Your task to perform on an android device: move an email to a new category in the gmail app Image 0: 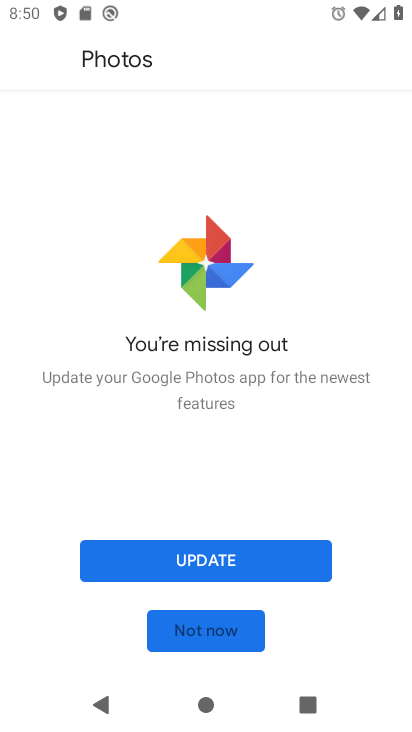
Step 0: drag from (264, 603) to (136, 194)
Your task to perform on an android device: move an email to a new category in the gmail app Image 1: 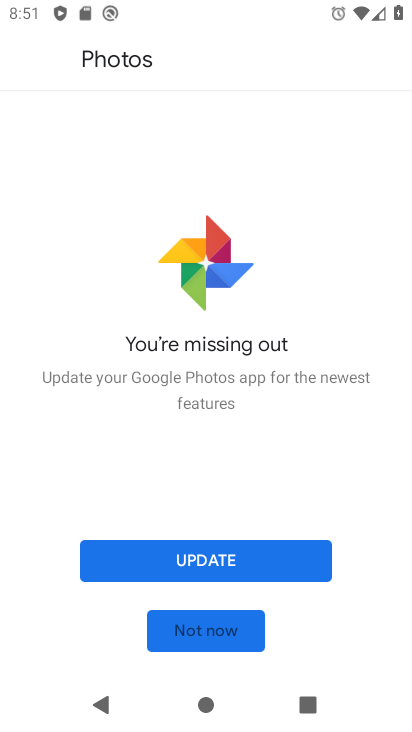
Step 1: press back button
Your task to perform on an android device: move an email to a new category in the gmail app Image 2: 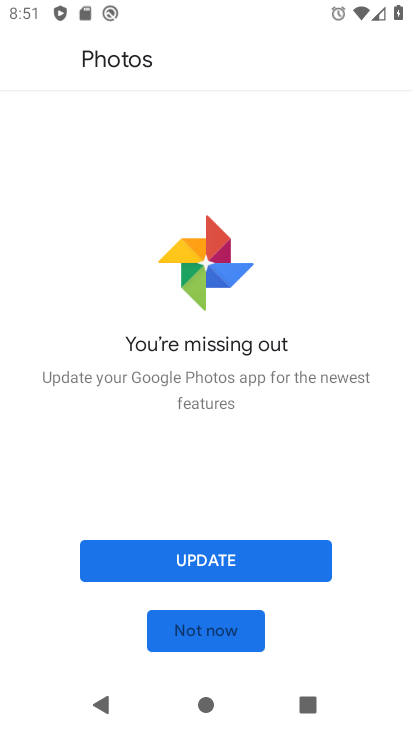
Step 2: press back button
Your task to perform on an android device: move an email to a new category in the gmail app Image 3: 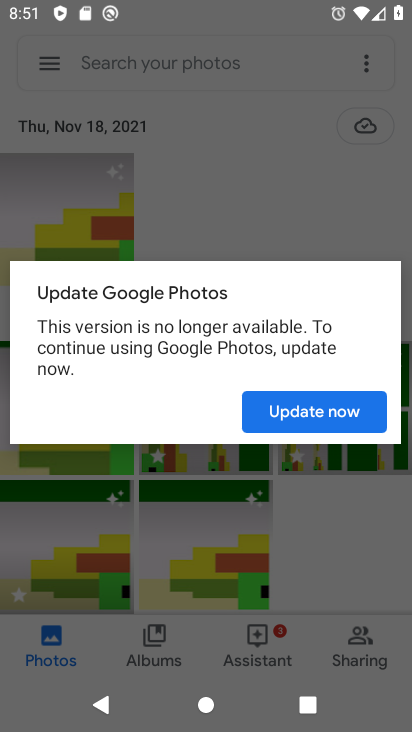
Step 3: press back button
Your task to perform on an android device: move an email to a new category in the gmail app Image 4: 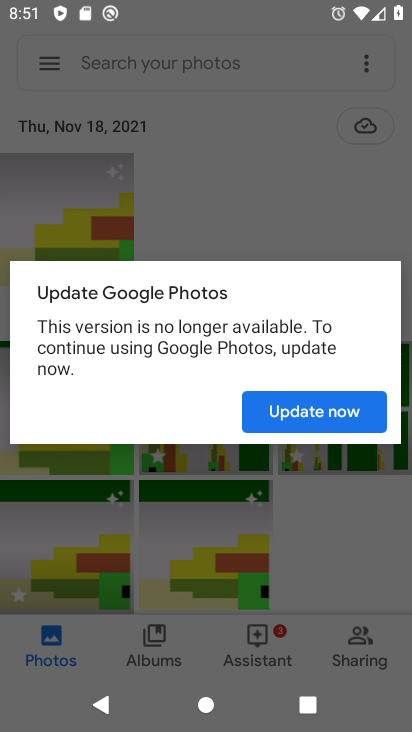
Step 4: press back button
Your task to perform on an android device: move an email to a new category in the gmail app Image 5: 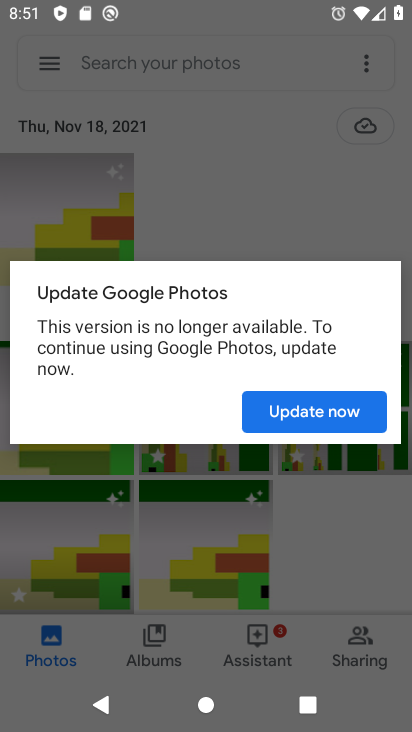
Step 5: press back button
Your task to perform on an android device: move an email to a new category in the gmail app Image 6: 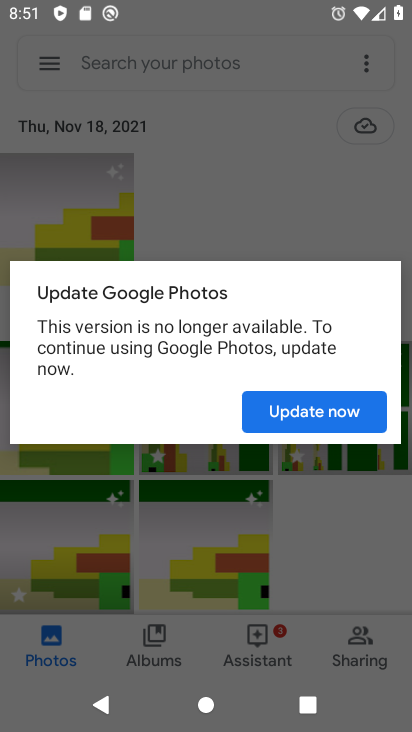
Step 6: click (317, 414)
Your task to perform on an android device: move an email to a new category in the gmail app Image 7: 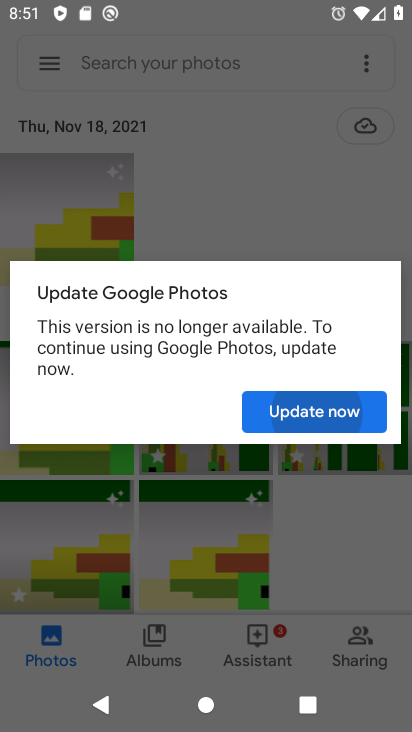
Step 7: click (317, 414)
Your task to perform on an android device: move an email to a new category in the gmail app Image 8: 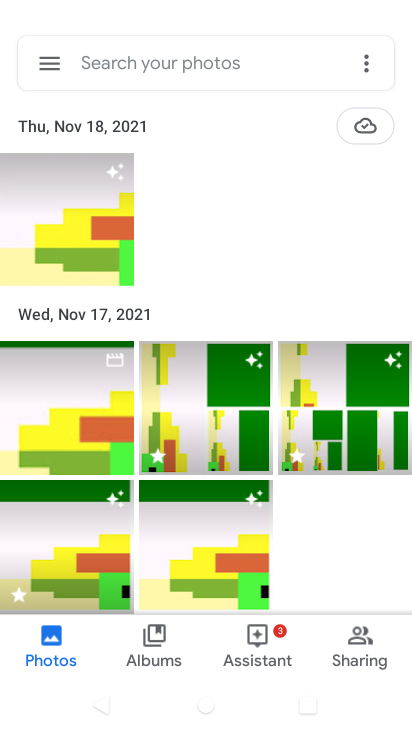
Step 8: click (319, 416)
Your task to perform on an android device: move an email to a new category in the gmail app Image 9: 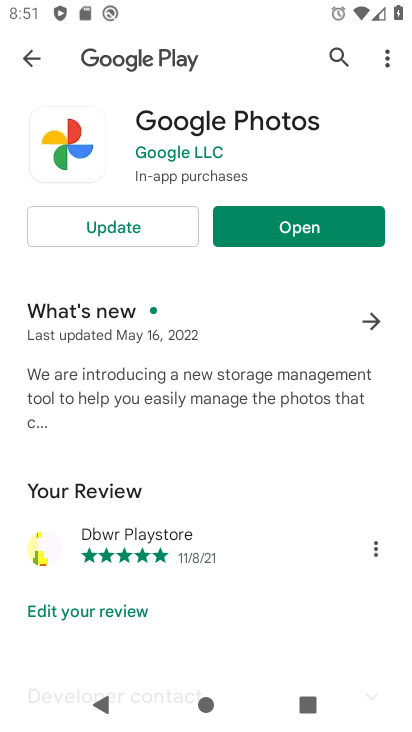
Step 9: press home button
Your task to perform on an android device: move an email to a new category in the gmail app Image 10: 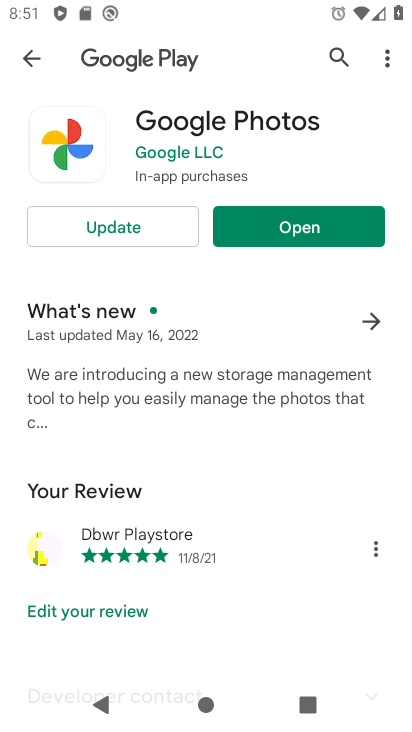
Step 10: press home button
Your task to perform on an android device: move an email to a new category in the gmail app Image 11: 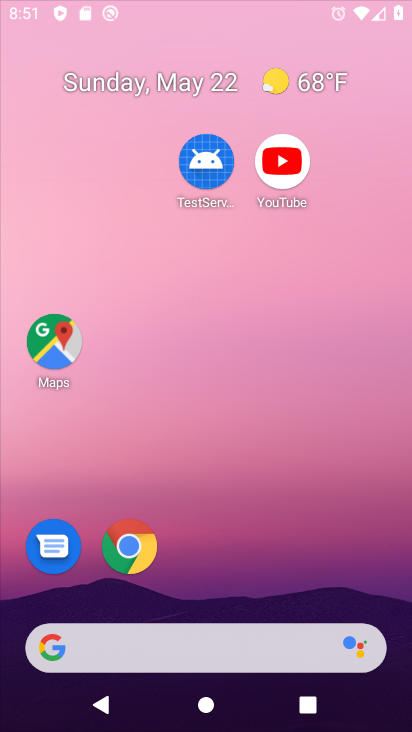
Step 11: press home button
Your task to perform on an android device: move an email to a new category in the gmail app Image 12: 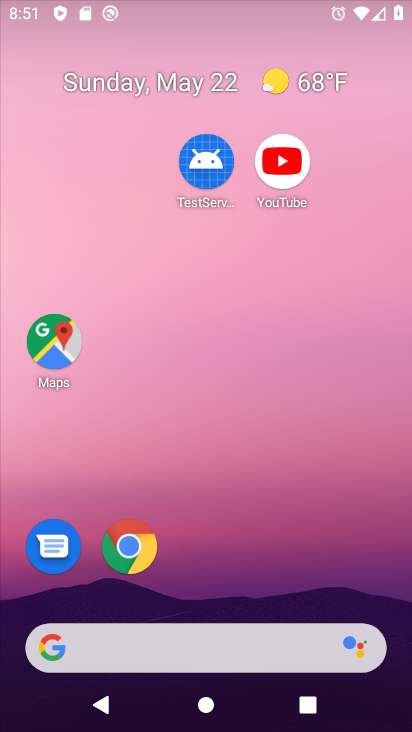
Step 12: press home button
Your task to perform on an android device: move an email to a new category in the gmail app Image 13: 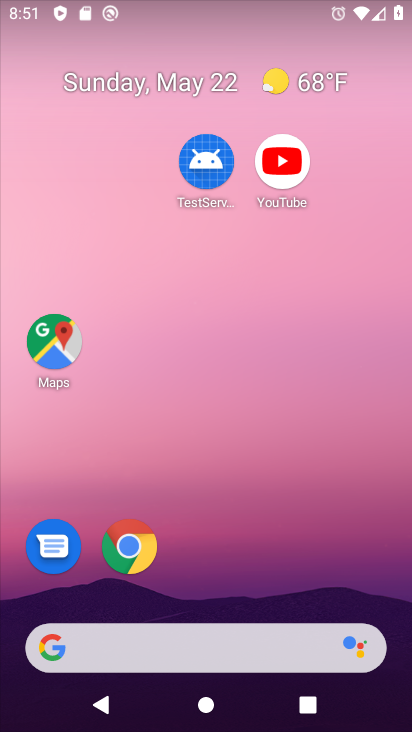
Step 13: press home button
Your task to perform on an android device: move an email to a new category in the gmail app Image 14: 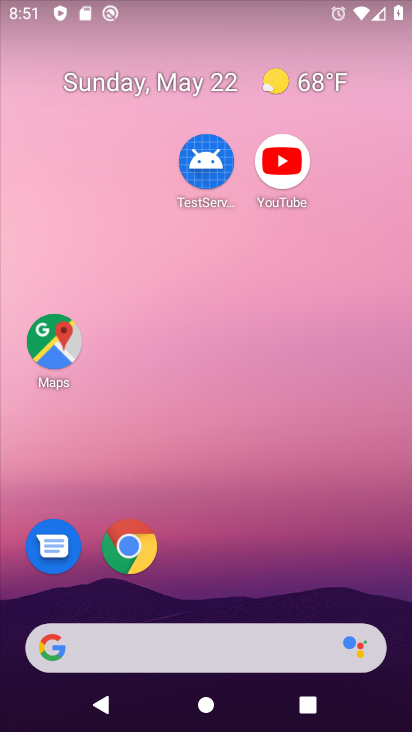
Step 14: drag from (283, 557) to (276, 157)
Your task to perform on an android device: move an email to a new category in the gmail app Image 15: 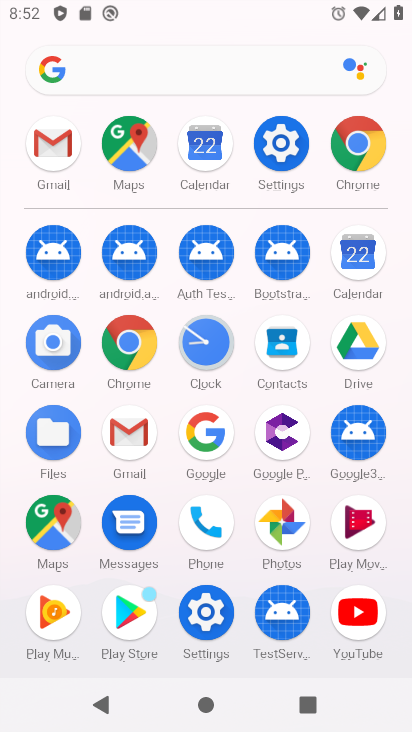
Step 15: click (118, 440)
Your task to perform on an android device: move an email to a new category in the gmail app Image 16: 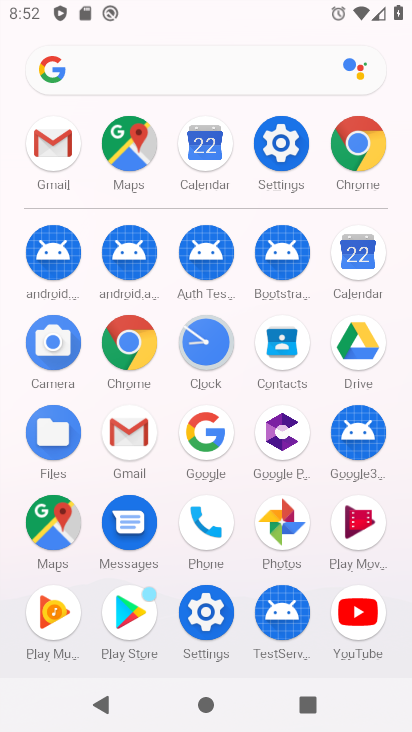
Step 16: click (118, 440)
Your task to perform on an android device: move an email to a new category in the gmail app Image 17: 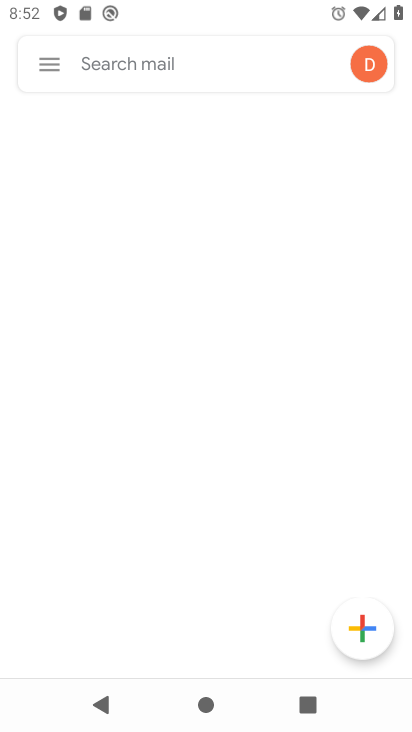
Step 17: click (118, 435)
Your task to perform on an android device: move an email to a new category in the gmail app Image 18: 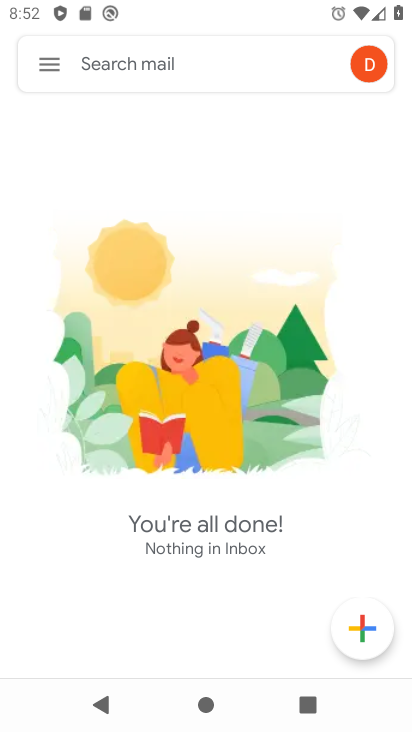
Step 18: click (48, 66)
Your task to perform on an android device: move an email to a new category in the gmail app Image 19: 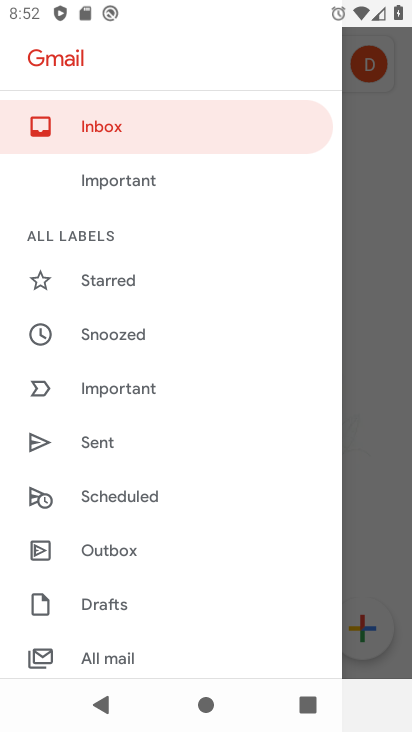
Step 19: click (107, 655)
Your task to perform on an android device: move an email to a new category in the gmail app Image 20: 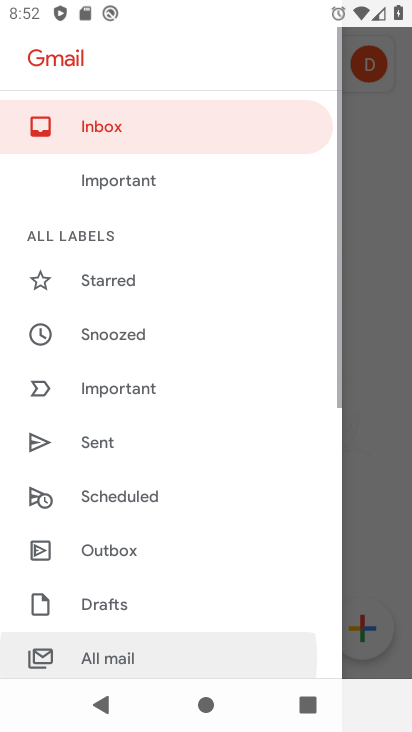
Step 20: click (108, 655)
Your task to perform on an android device: move an email to a new category in the gmail app Image 21: 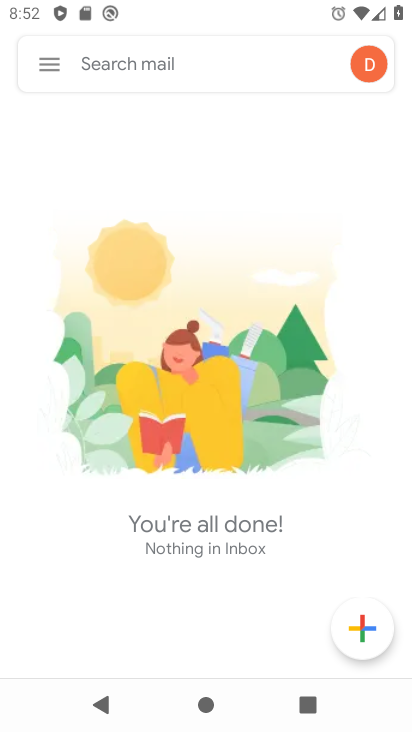
Step 21: click (108, 655)
Your task to perform on an android device: move an email to a new category in the gmail app Image 22: 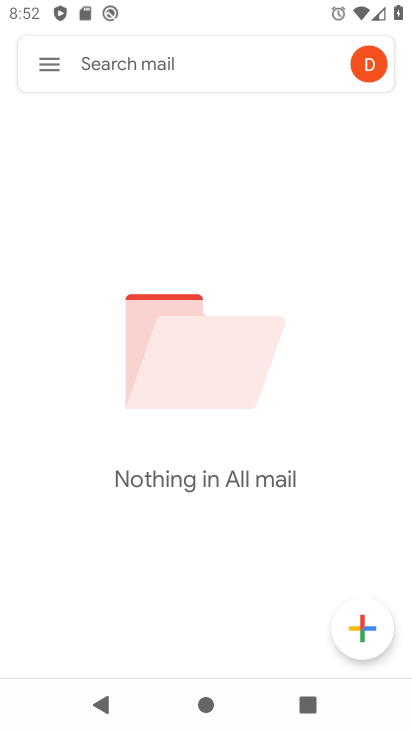
Step 22: task complete